Your task to perform on an android device: Show me productivity apps on the Play Store Image 0: 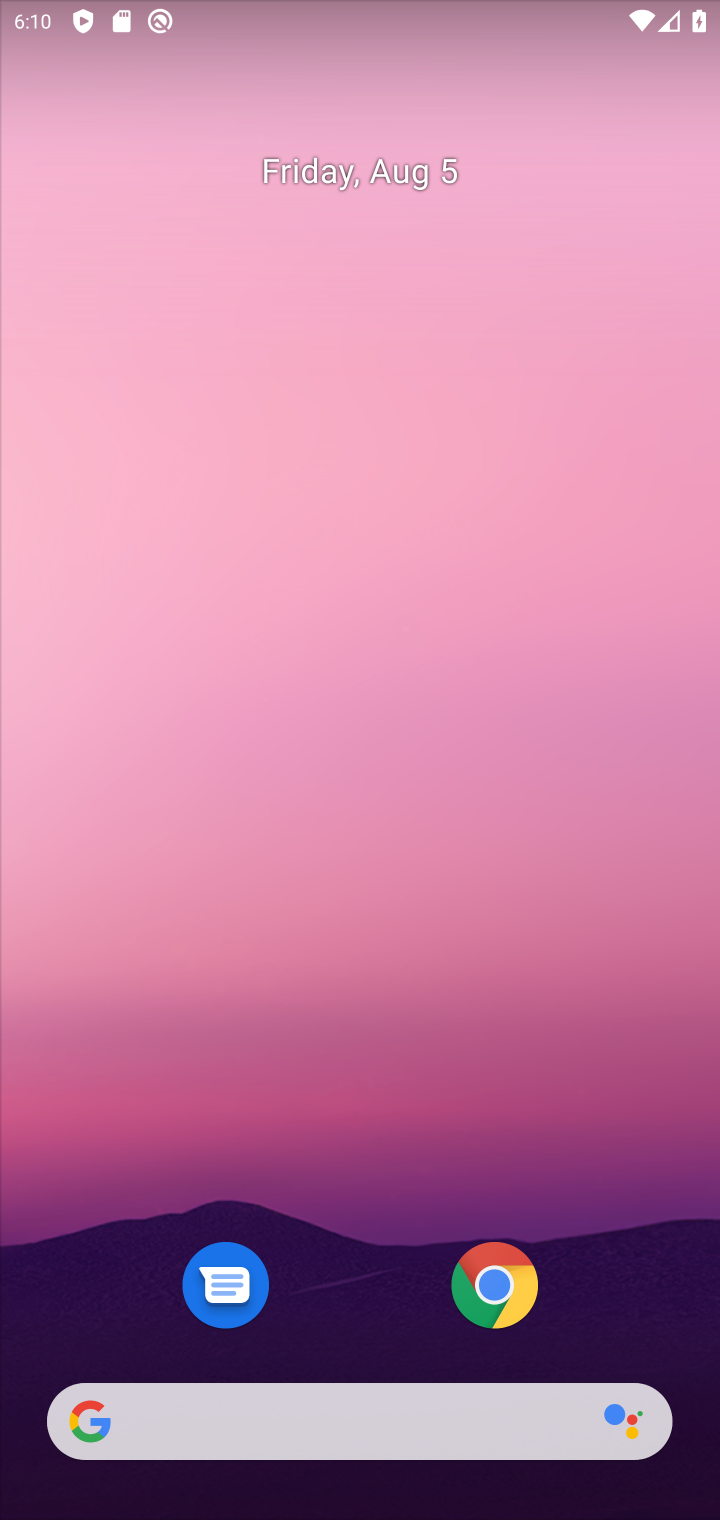
Step 0: drag from (356, 1319) to (334, 118)
Your task to perform on an android device: Show me productivity apps on the Play Store Image 1: 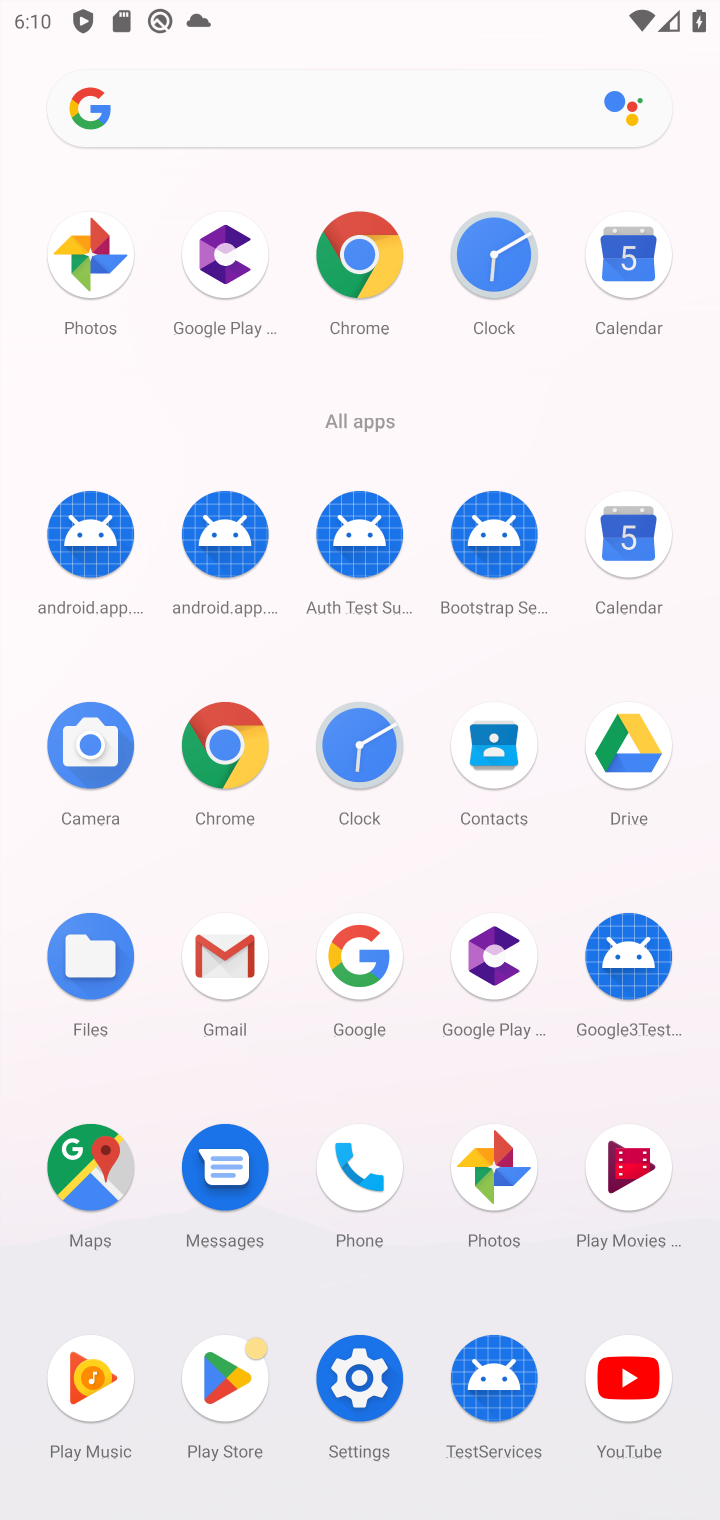
Step 1: click (232, 1383)
Your task to perform on an android device: Show me productivity apps on the Play Store Image 2: 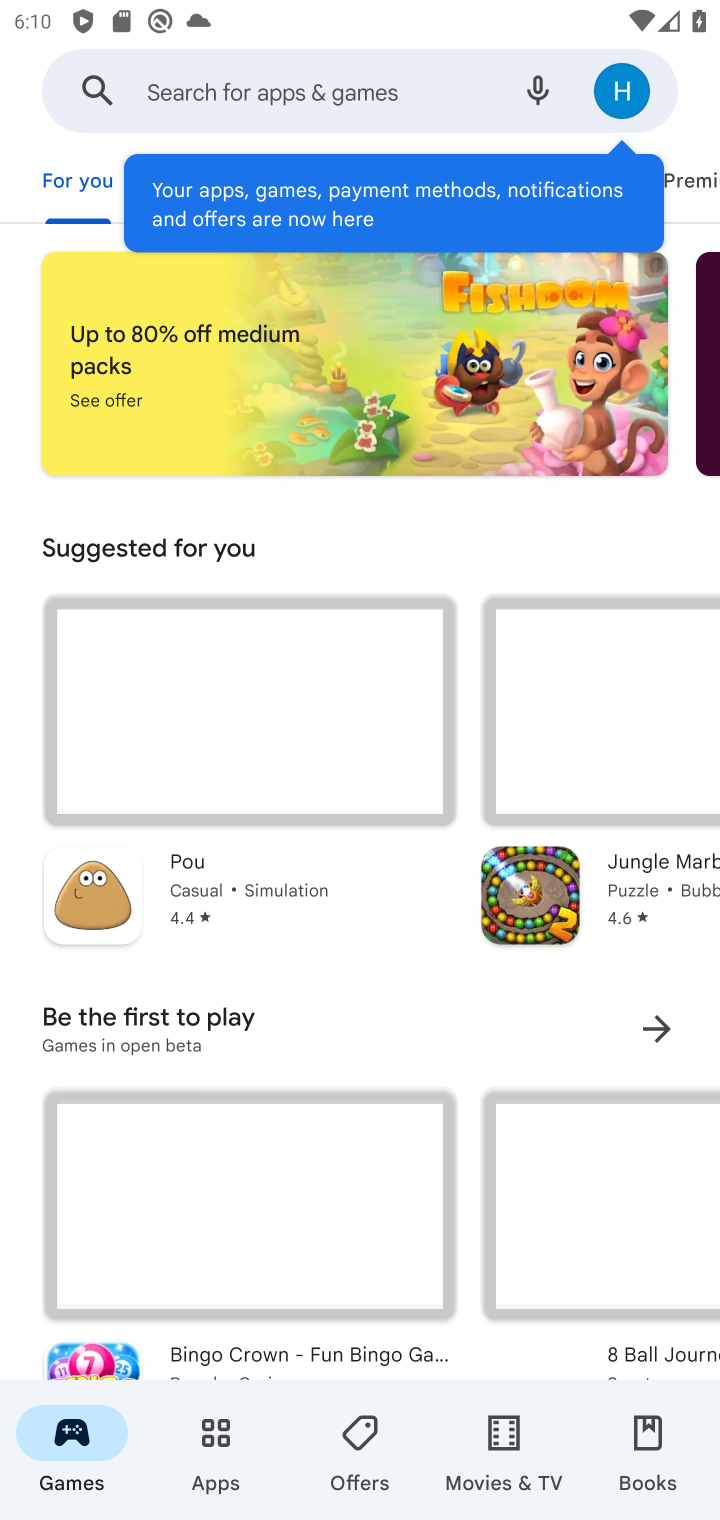
Step 2: click (216, 1448)
Your task to perform on an android device: Show me productivity apps on the Play Store Image 3: 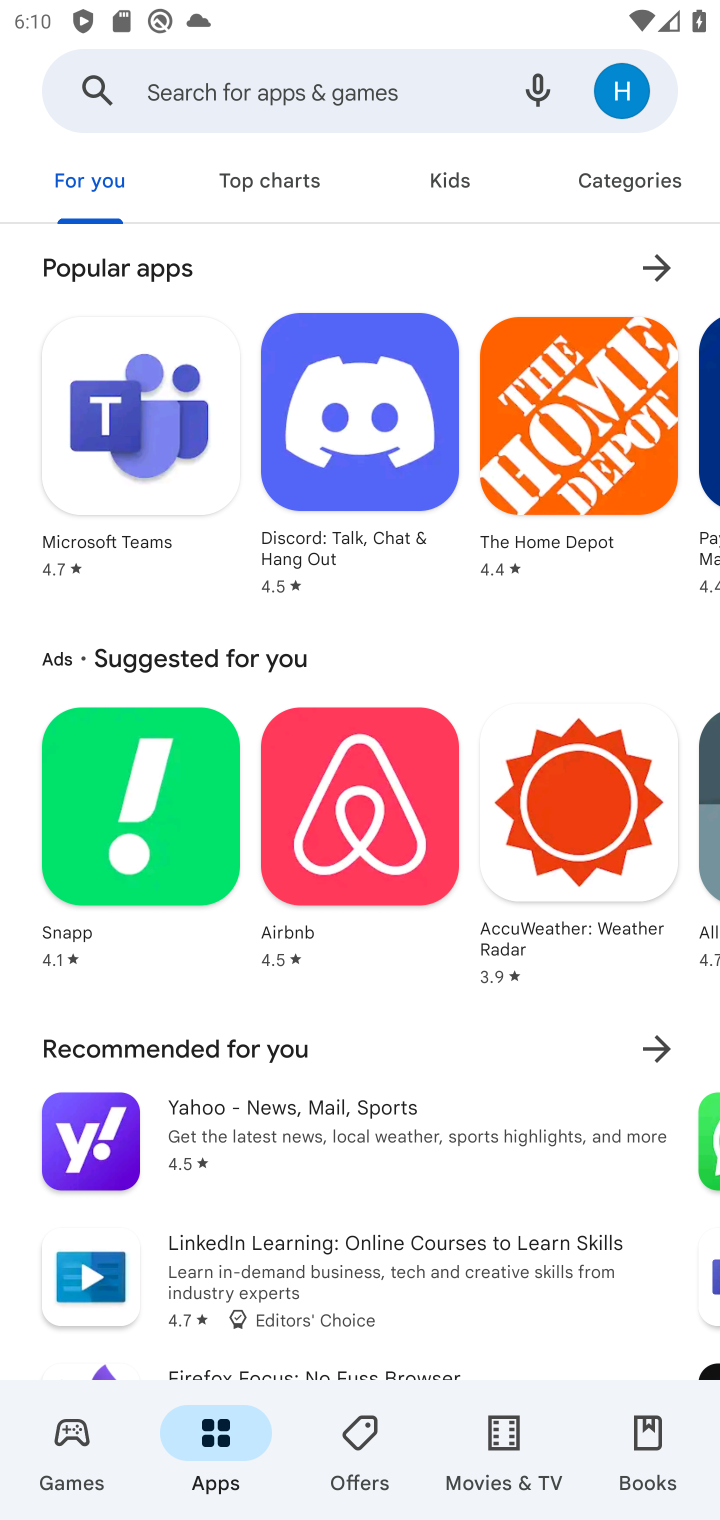
Step 3: click (598, 172)
Your task to perform on an android device: Show me productivity apps on the Play Store Image 4: 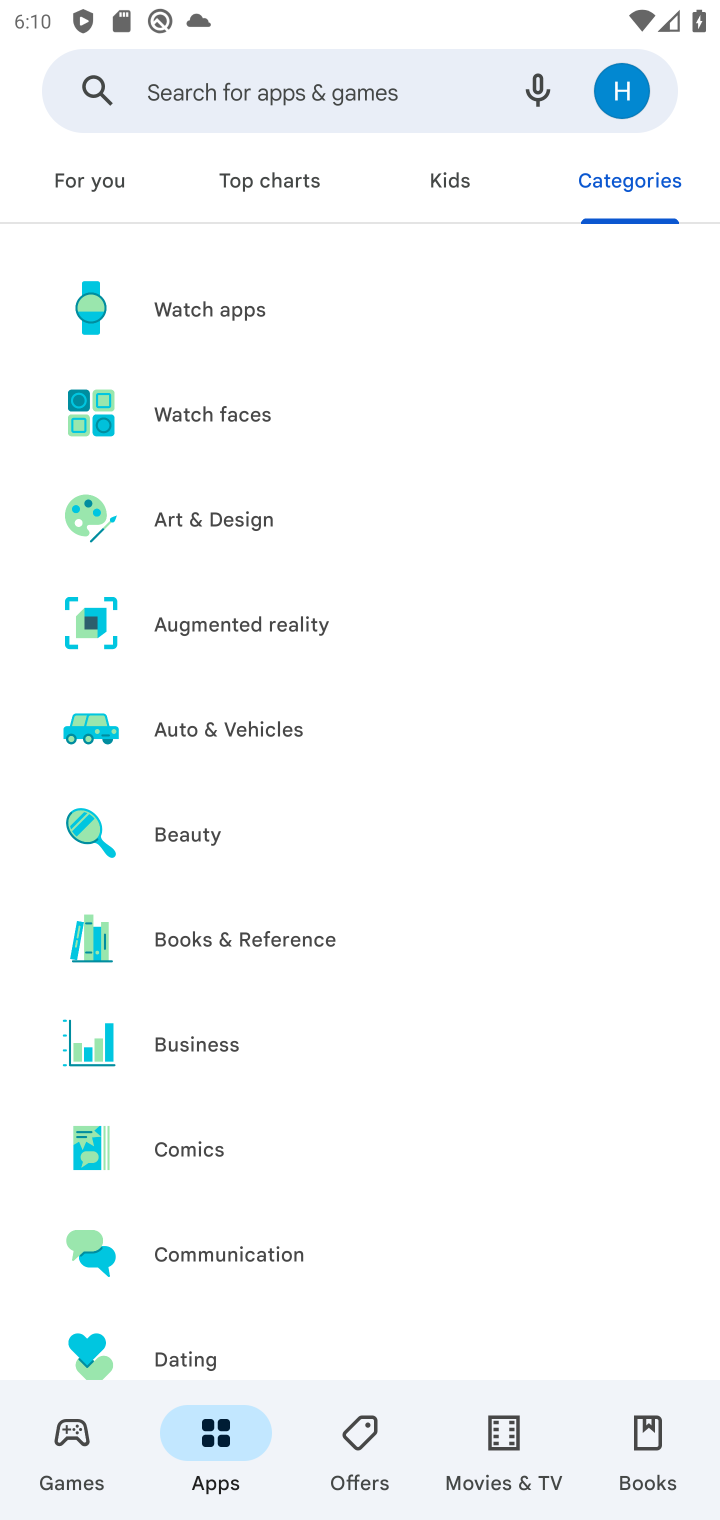
Step 4: drag from (252, 1286) to (217, 648)
Your task to perform on an android device: Show me productivity apps on the Play Store Image 5: 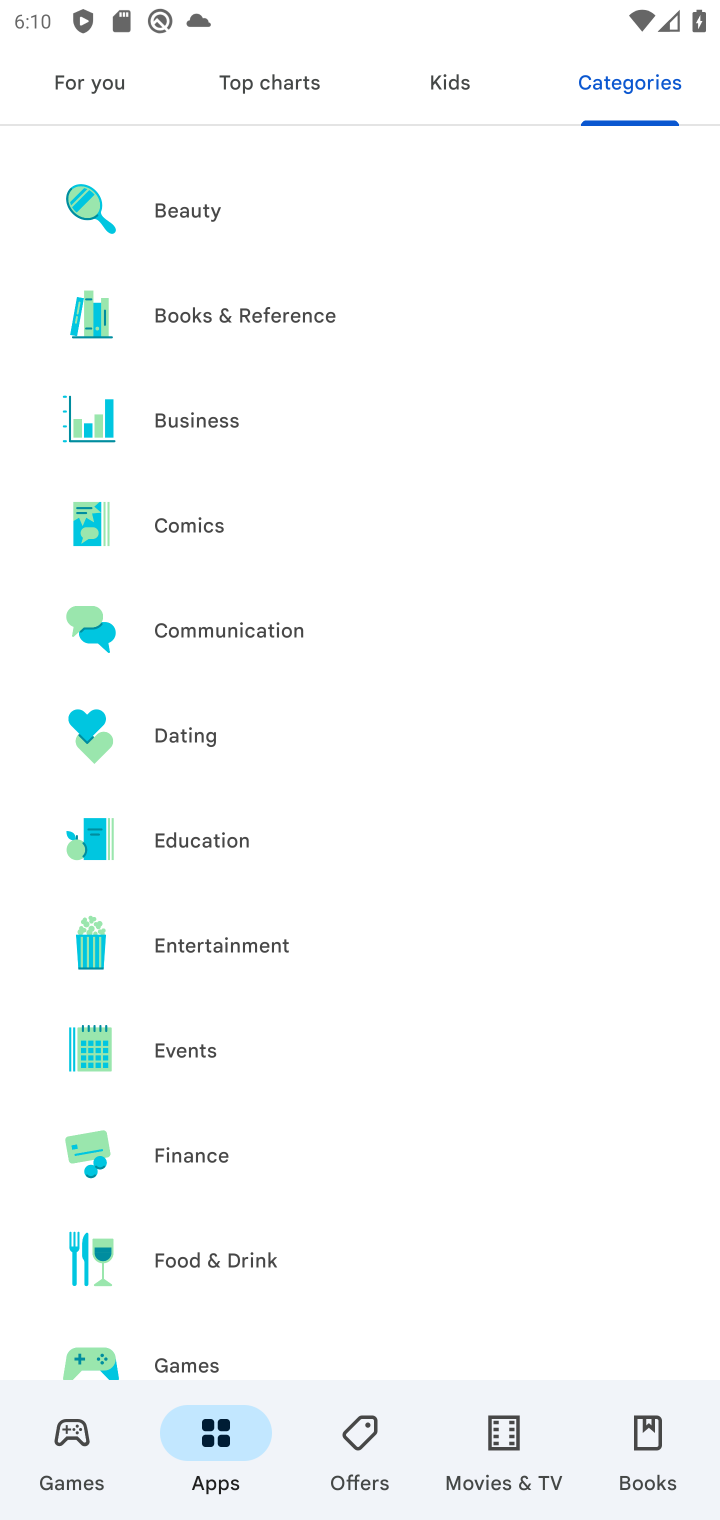
Step 5: drag from (271, 1178) to (247, 731)
Your task to perform on an android device: Show me productivity apps on the Play Store Image 6: 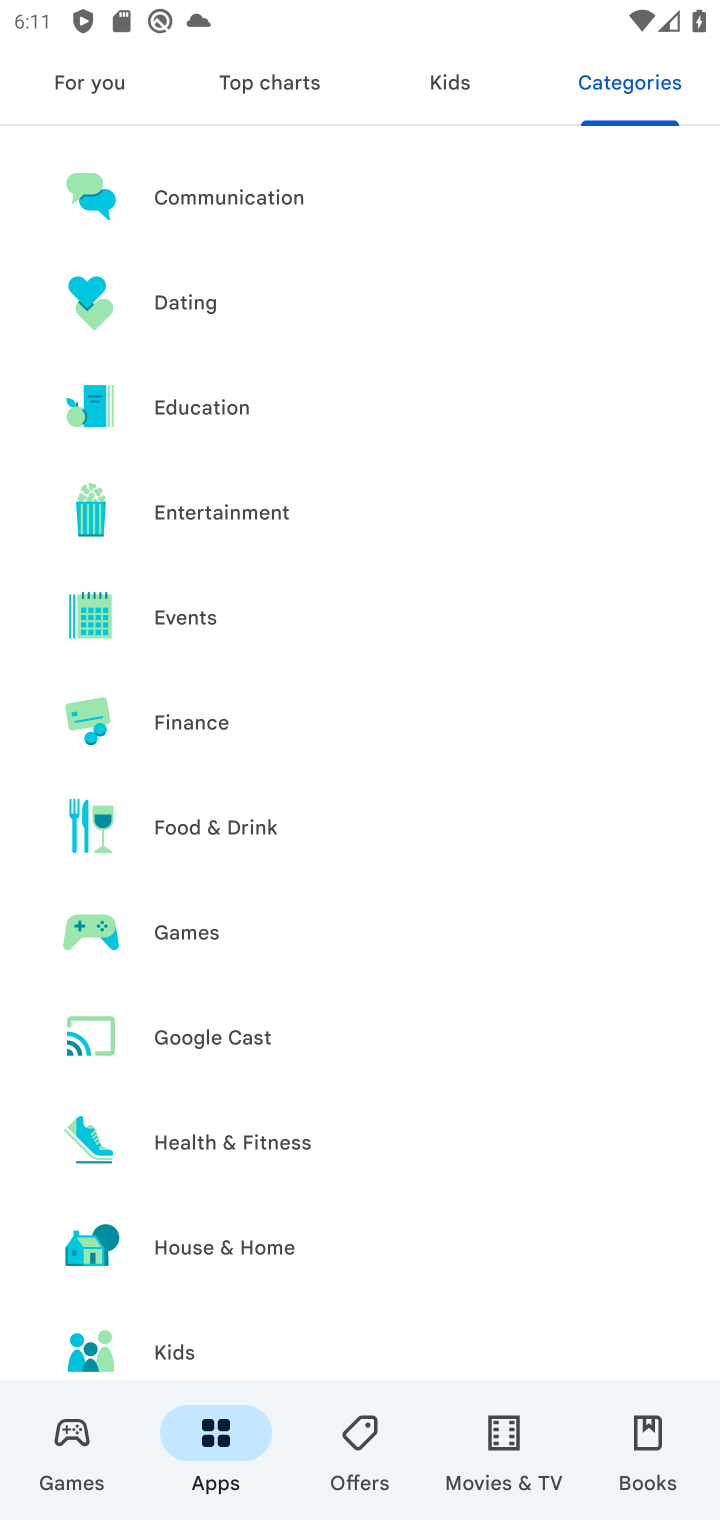
Step 6: drag from (251, 1317) to (226, 146)
Your task to perform on an android device: Show me productivity apps on the Play Store Image 7: 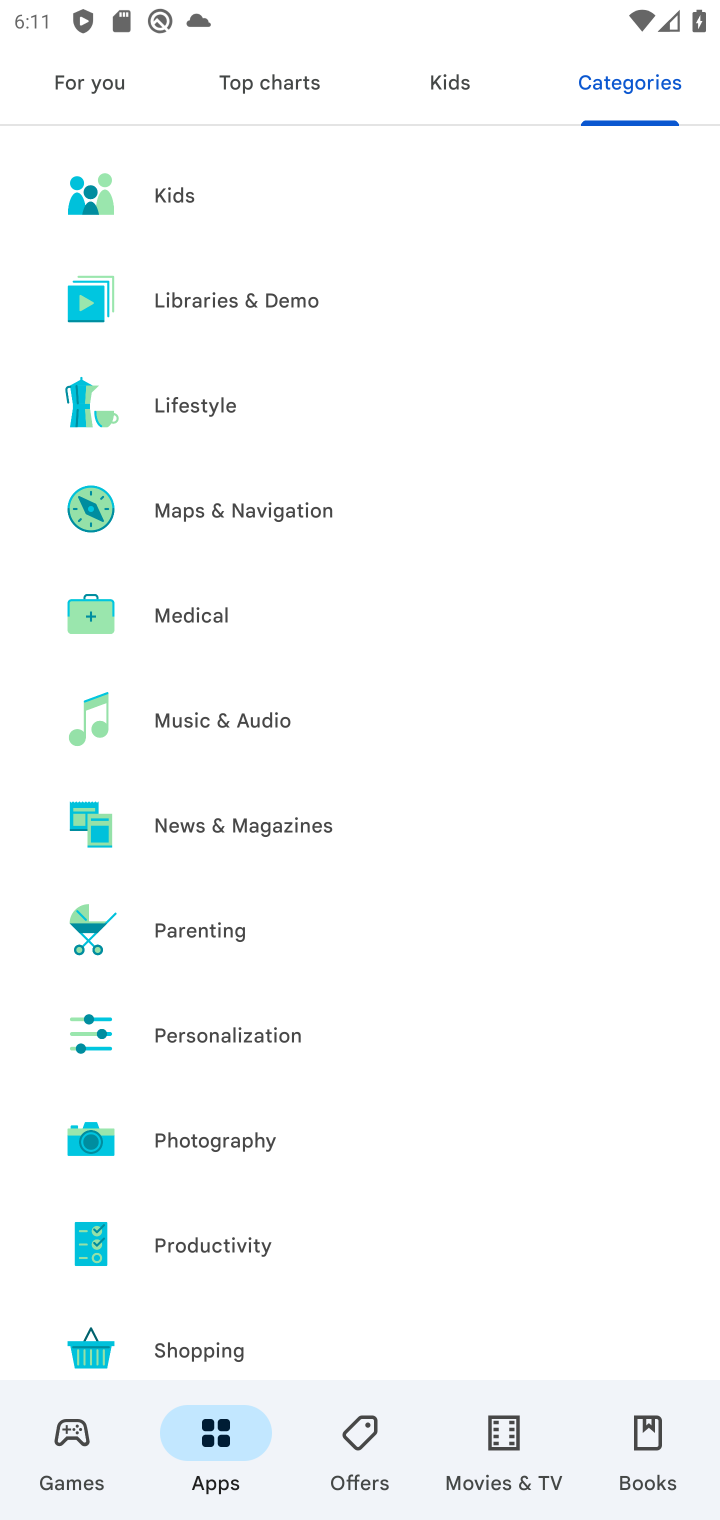
Step 7: click (240, 1243)
Your task to perform on an android device: Show me productivity apps on the Play Store Image 8: 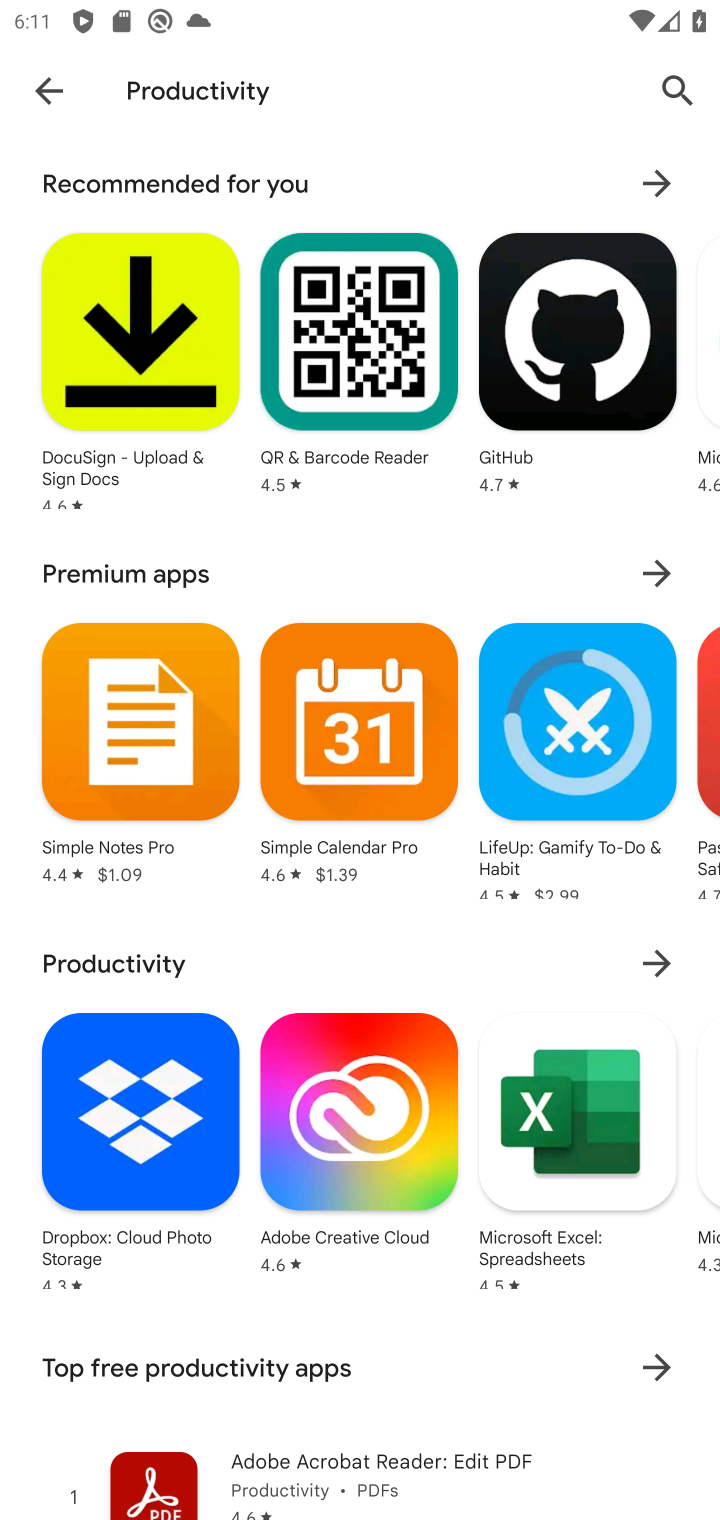
Step 8: task complete